Your task to perform on an android device: change keyboard looks Image 0: 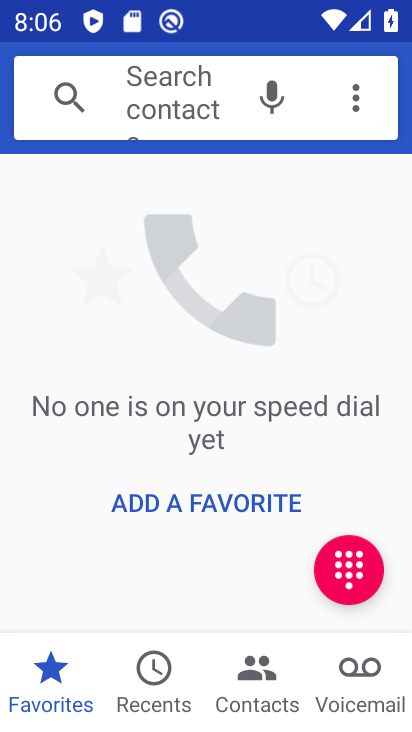
Step 0: press home button
Your task to perform on an android device: change keyboard looks Image 1: 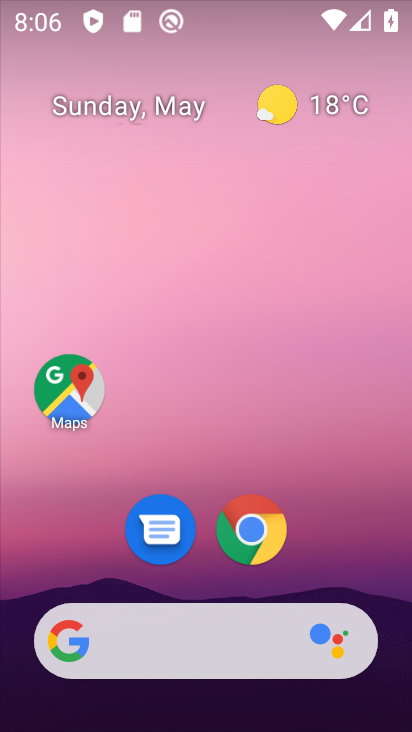
Step 1: drag from (375, 390) to (344, 0)
Your task to perform on an android device: change keyboard looks Image 2: 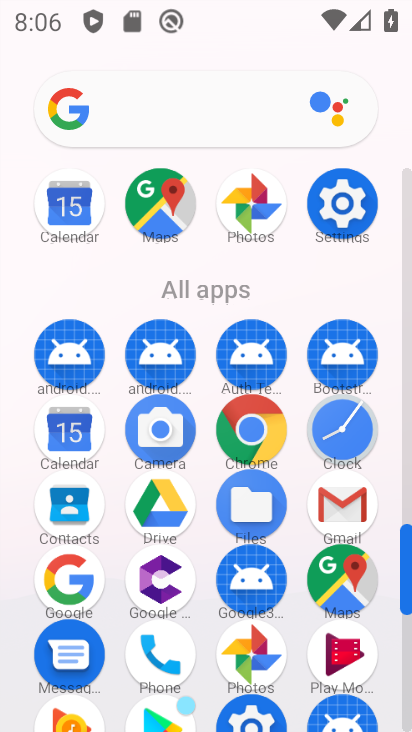
Step 2: click (348, 210)
Your task to perform on an android device: change keyboard looks Image 3: 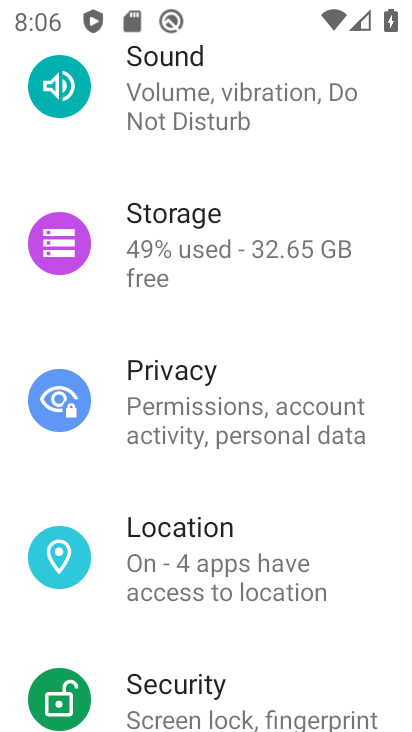
Step 3: drag from (382, 602) to (370, 126)
Your task to perform on an android device: change keyboard looks Image 4: 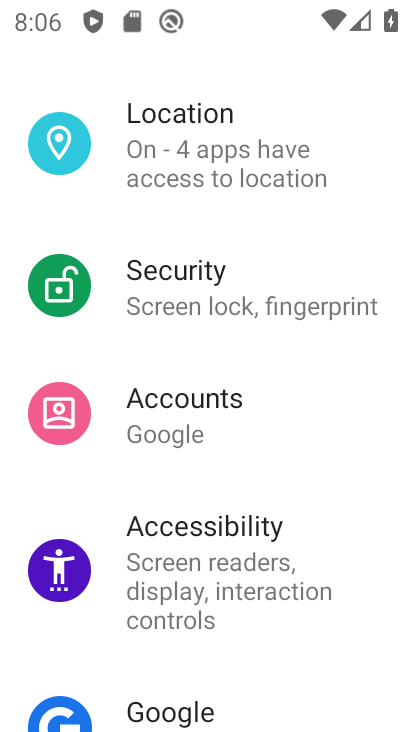
Step 4: drag from (314, 621) to (326, 207)
Your task to perform on an android device: change keyboard looks Image 5: 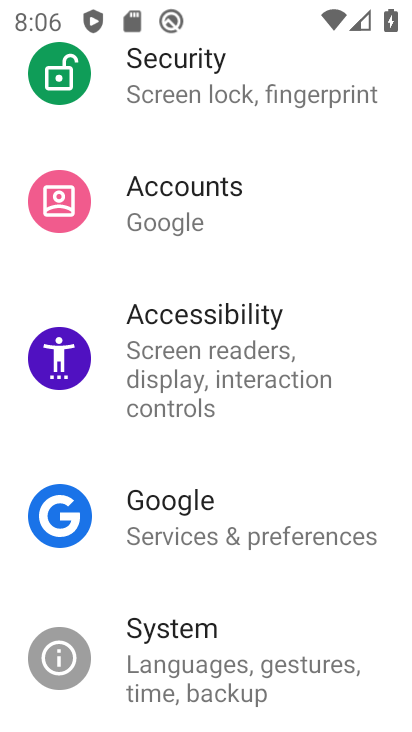
Step 5: click (159, 642)
Your task to perform on an android device: change keyboard looks Image 6: 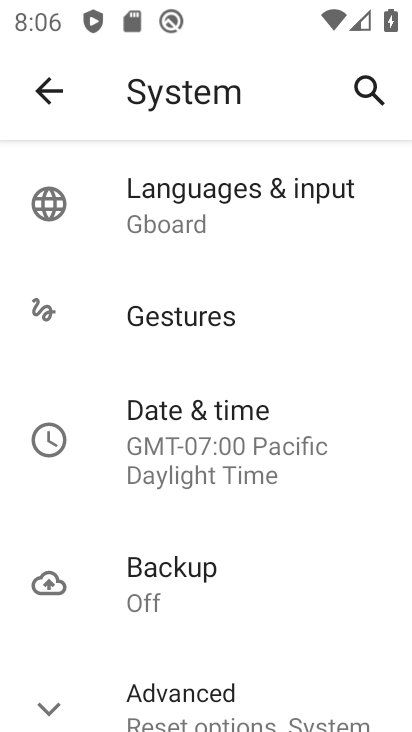
Step 6: click (149, 208)
Your task to perform on an android device: change keyboard looks Image 7: 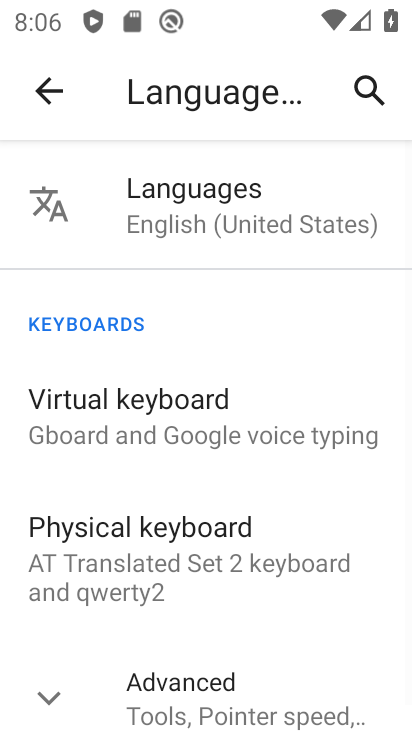
Step 7: click (147, 425)
Your task to perform on an android device: change keyboard looks Image 8: 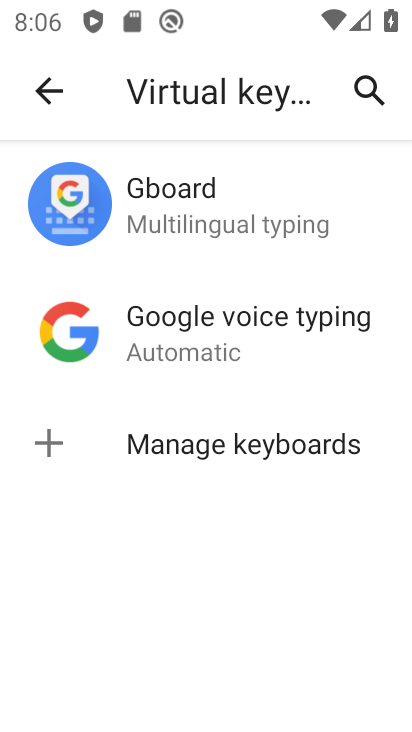
Step 8: click (148, 211)
Your task to perform on an android device: change keyboard looks Image 9: 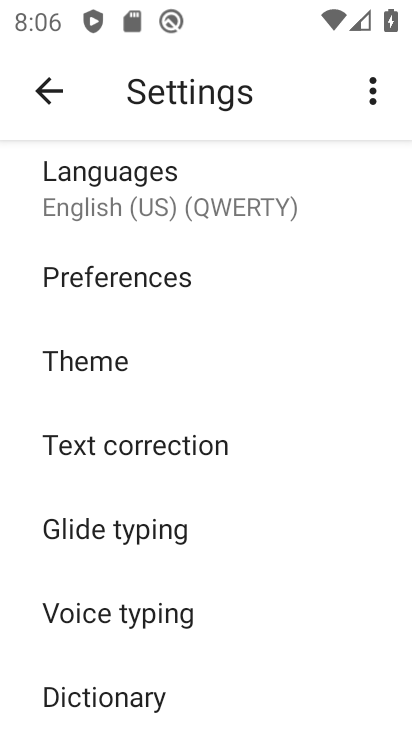
Step 9: click (91, 360)
Your task to perform on an android device: change keyboard looks Image 10: 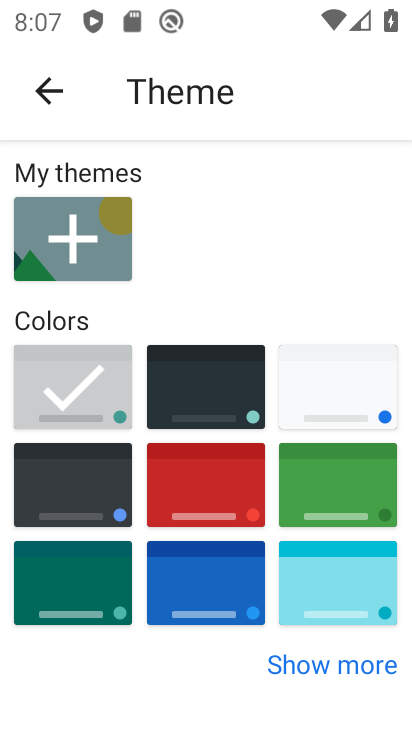
Step 10: click (207, 399)
Your task to perform on an android device: change keyboard looks Image 11: 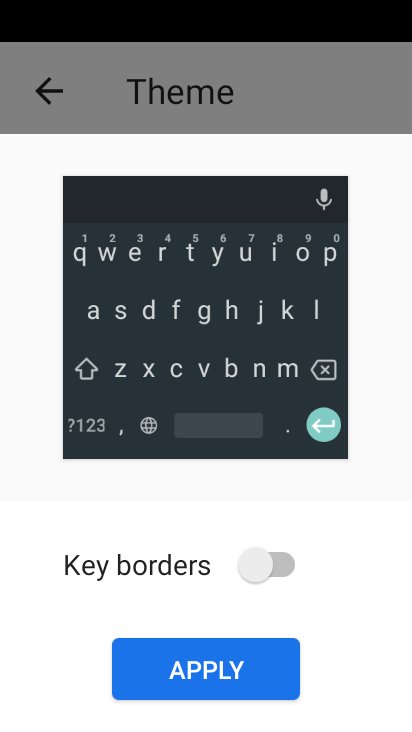
Step 11: click (247, 563)
Your task to perform on an android device: change keyboard looks Image 12: 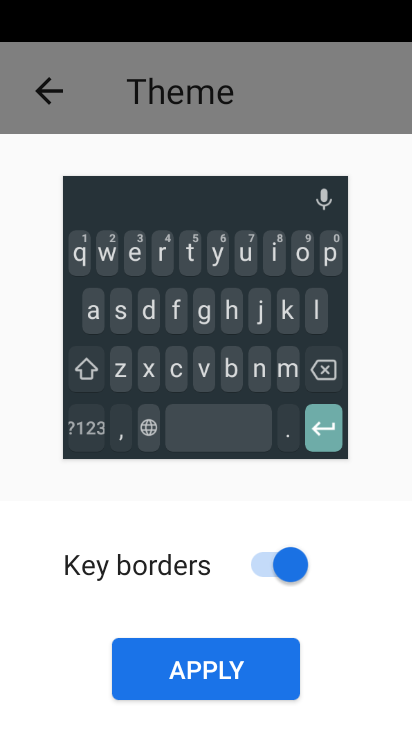
Step 12: click (204, 678)
Your task to perform on an android device: change keyboard looks Image 13: 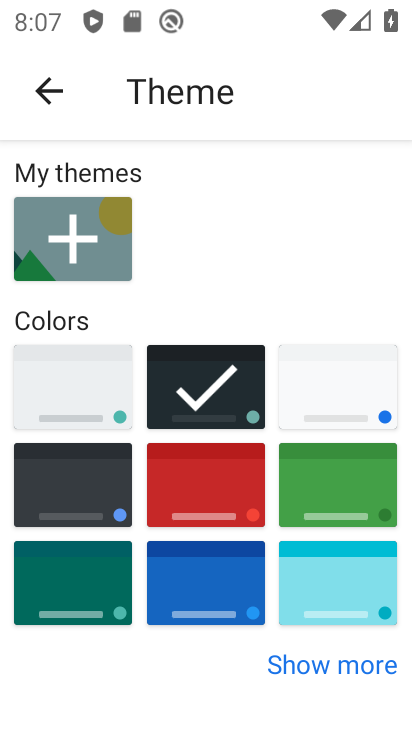
Step 13: task complete